Your task to perform on an android device: Go to ESPN.com Image 0: 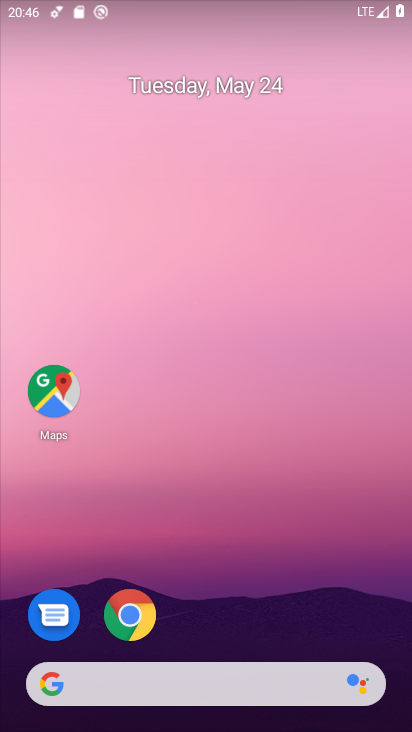
Step 0: click (124, 601)
Your task to perform on an android device: Go to ESPN.com Image 1: 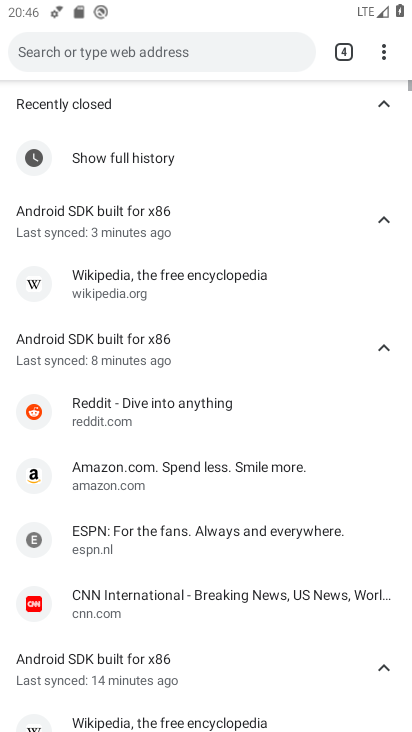
Step 1: click (372, 51)
Your task to perform on an android device: Go to ESPN.com Image 2: 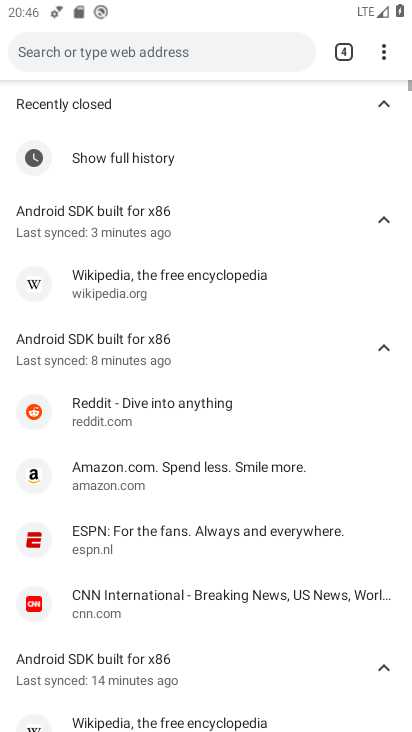
Step 2: click (384, 48)
Your task to perform on an android device: Go to ESPN.com Image 3: 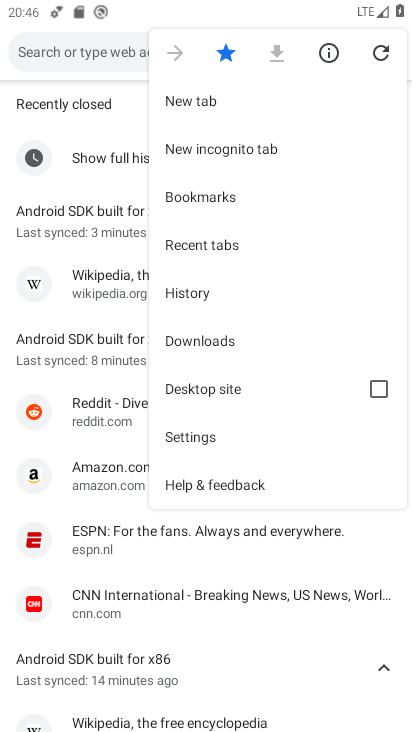
Step 3: click (214, 98)
Your task to perform on an android device: Go to ESPN.com Image 4: 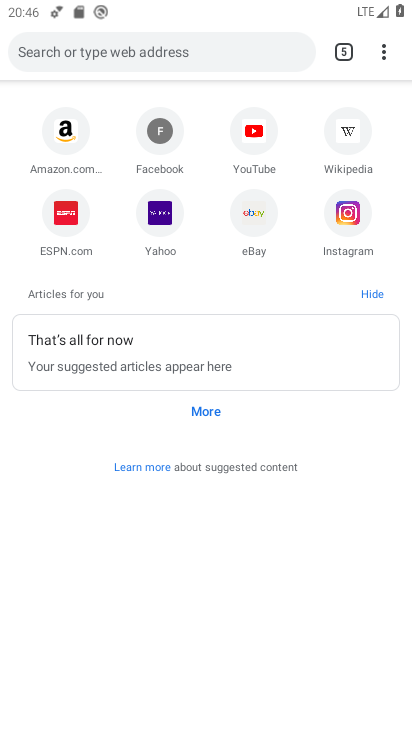
Step 4: click (35, 209)
Your task to perform on an android device: Go to ESPN.com Image 5: 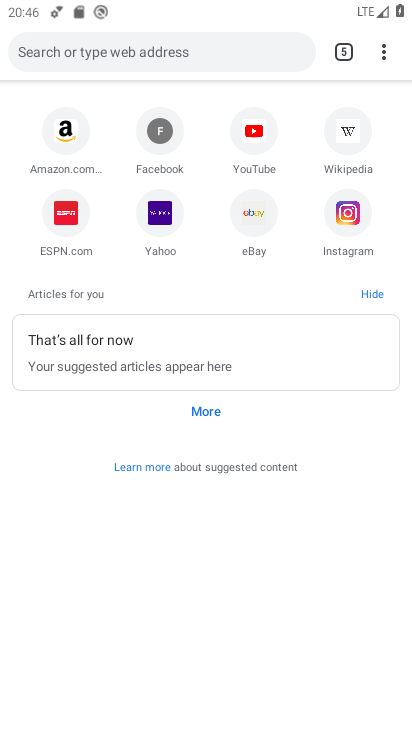
Step 5: click (69, 214)
Your task to perform on an android device: Go to ESPN.com Image 6: 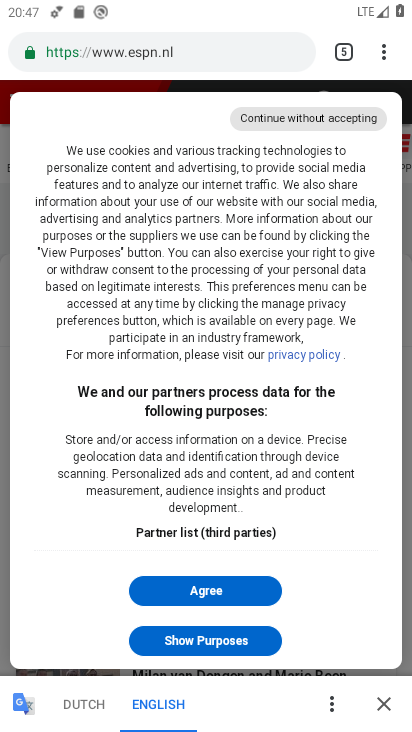
Step 6: task complete